Your task to perform on an android device: Check the news Image 0: 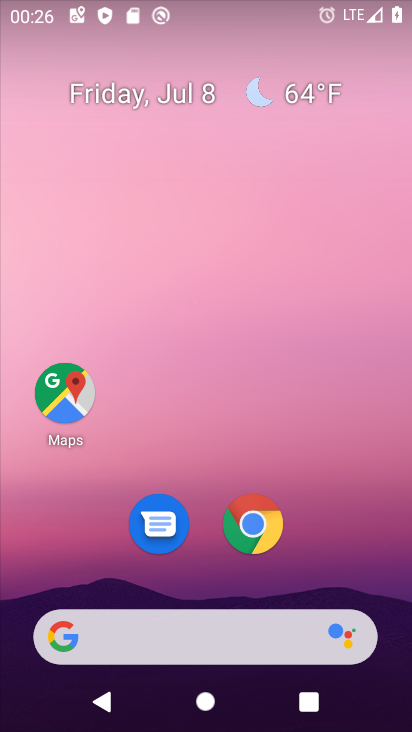
Step 0: drag from (324, 516) to (285, 31)
Your task to perform on an android device: Check the news Image 1: 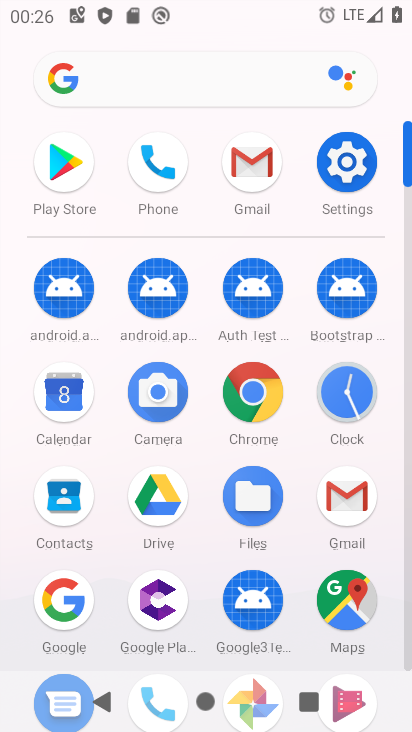
Step 1: click (221, 90)
Your task to perform on an android device: Check the news Image 2: 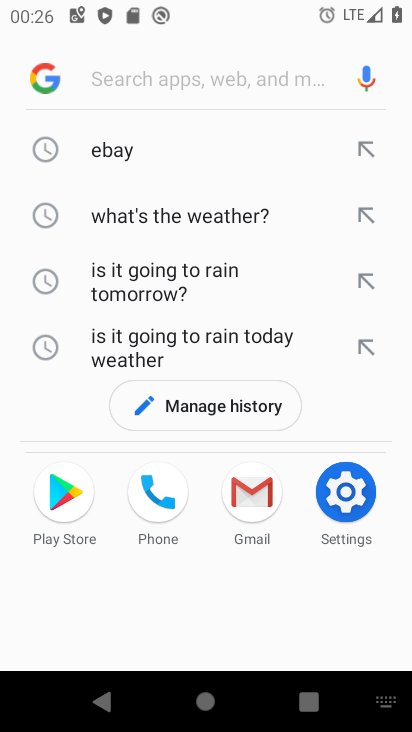
Step 2: type "News"
Your task to perform on an android device: Check the news Image 3: 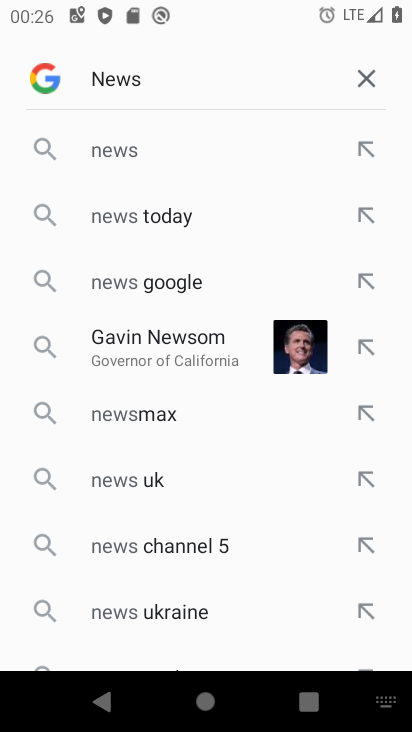
Step 3: click (128, 145)
Your task to perform on an android device: Check the news Image 4: 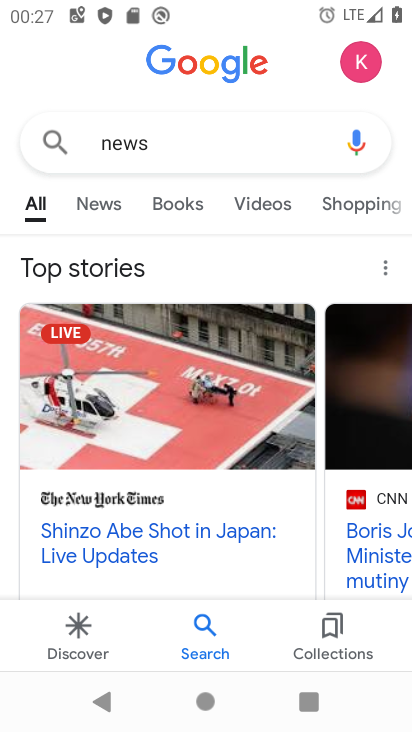
Step 4: task complete